Your task to perform on an android device: open sync settings in chrome Image 0: 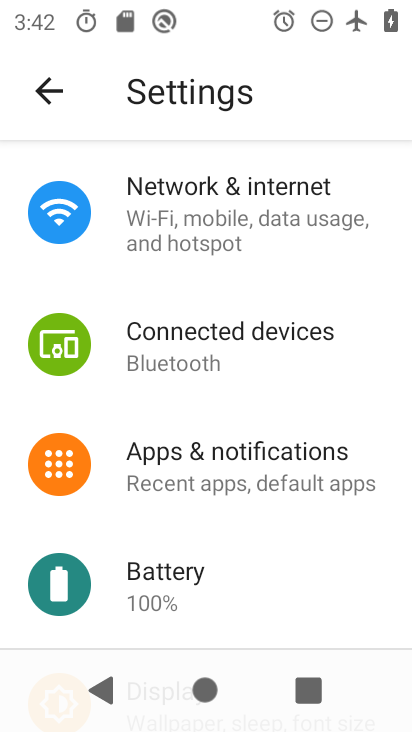
Step 0: press home button
Your task to perform on an android device: open sync settings in chrome Image 1: 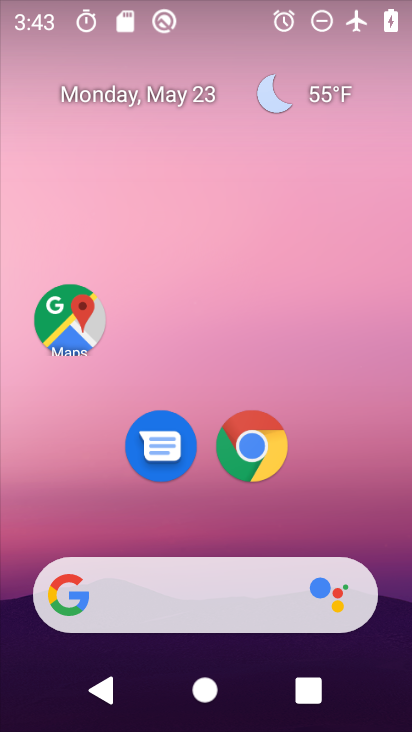
Step 1: drag from (223, 540) to (214, 127)
Your task to perform on an android device: open sync settings in chrome Image 2: 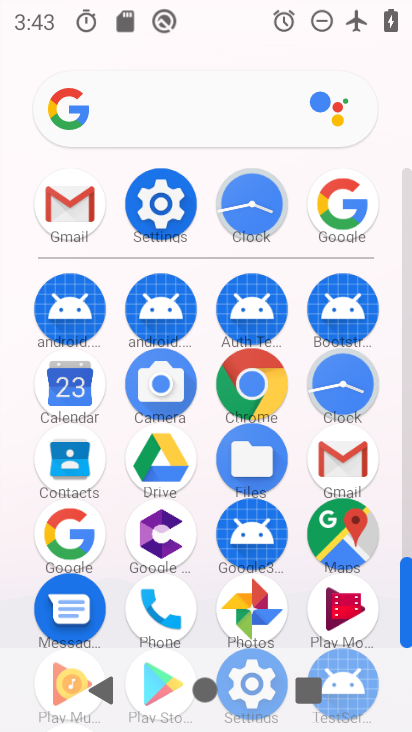
Step 2: click (260, 396)
Your task to perform on an android device: open sync settings in chrome Image 3: 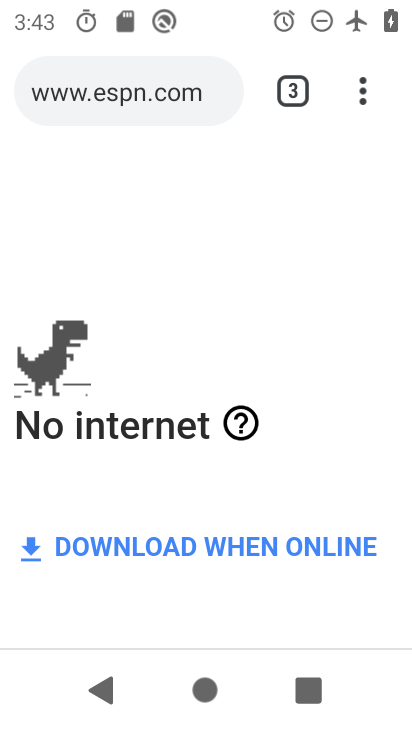
Step 3: click (356, 88)
Your task to perform on an android device: open sync settings in chrome Image 4: 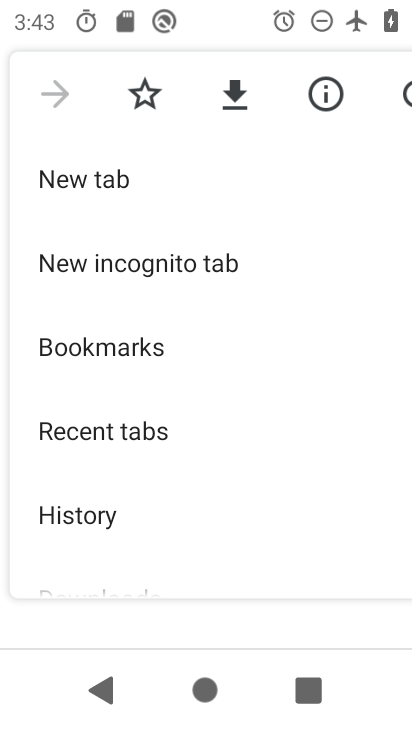
Step 4: drag from (101, 570) to (109, 270)
Your task to perform on an android device: open sync settings in chrome Image 5: 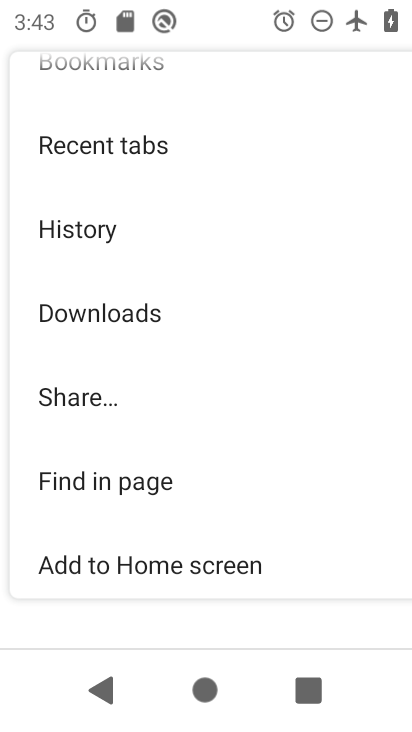
Step 5: drag from (164, 490) to (154, 214)
Your task to perform on an android device: open sync settings in chrome Image 6: 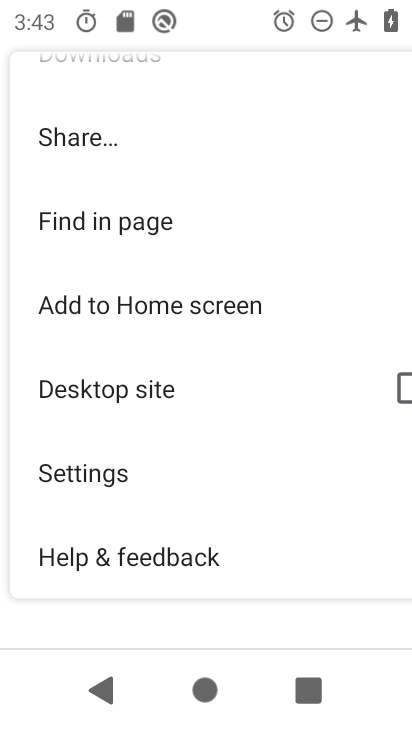
Step 6: click (128, 463)
Your task to perform on an android device: open sync settings in chrome Image 7: 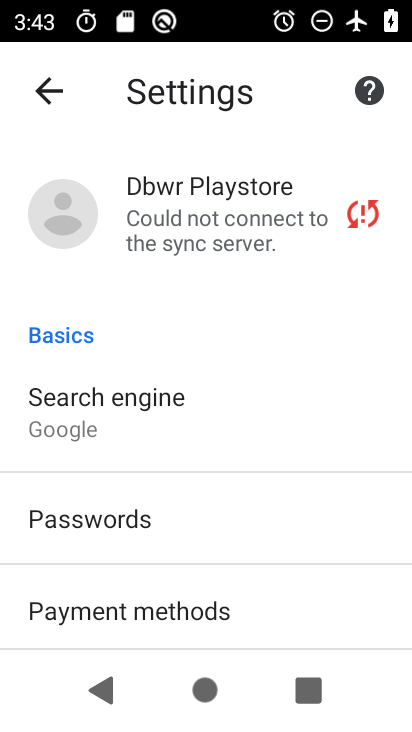
Step 7: click (198, 229)
Your task to perform on an android device: open sync settings in chrome Image 8: 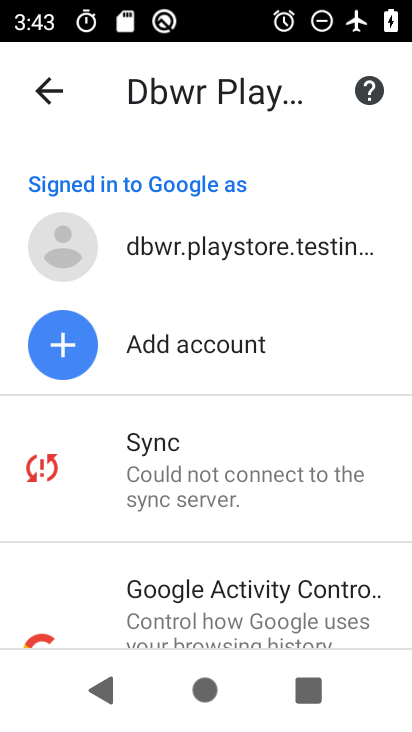
Step 8: click (211, 426)
Your task to perform on an android device: open sync settings in chrome Image 9: 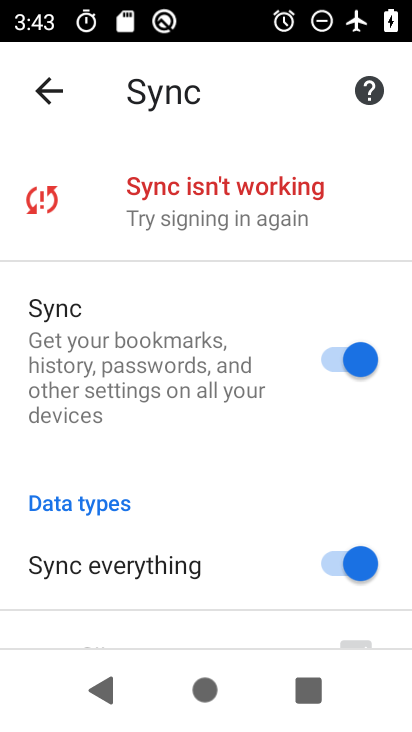
Step 9: task complete